Your task to perform on an android device: find which apps use the phone's location Image 0: 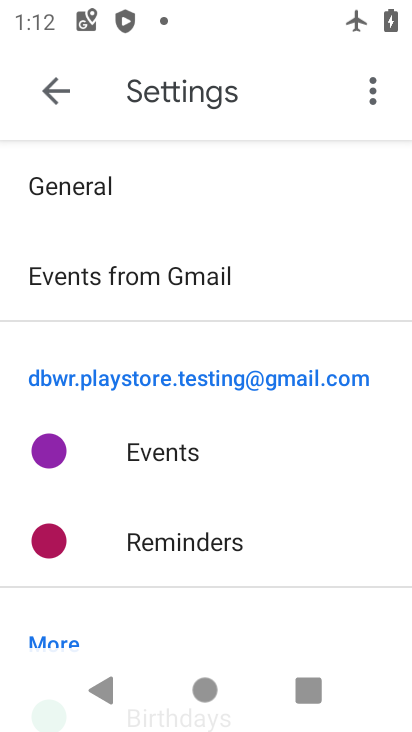
Step 0: press home button
Your task to perform on an android device: find which apps use the phone's location Image 1: 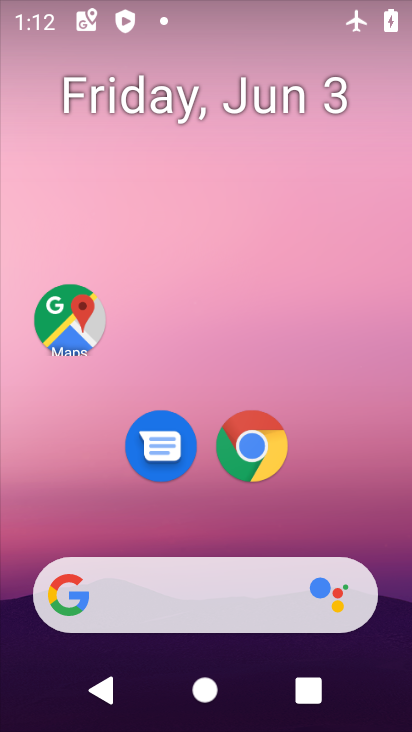
Step 1: drag from (263, 9) to (285, 477)
Your task to perform on an android device: find which apps use the phone's location Image 2: 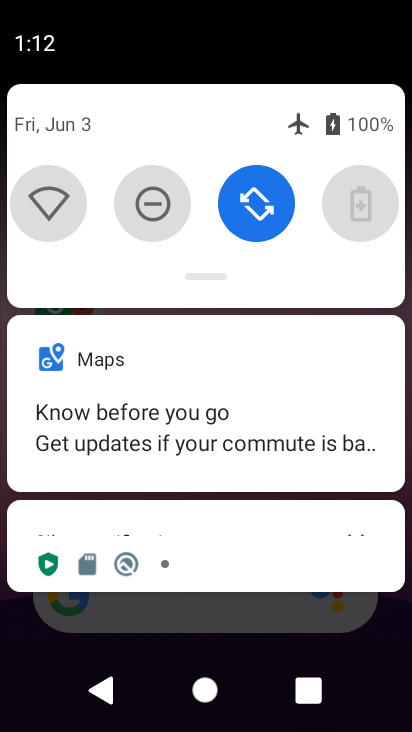
Step 2: drag from (381, 411) to (368, 679)
Your task to perform on an android device: find which apps use the phone's location Image 3: 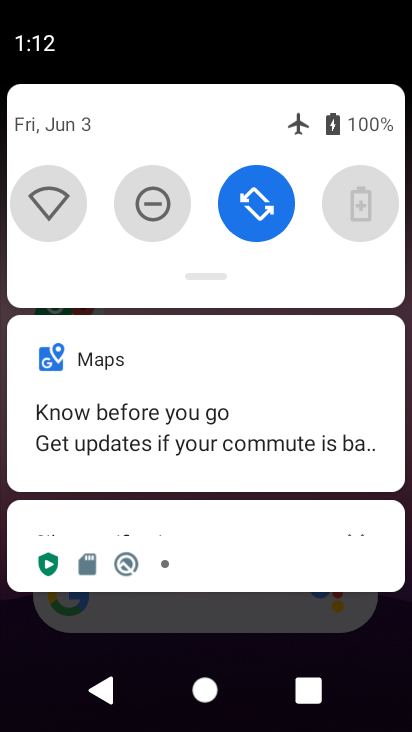
Step 3: drag from (374, 213) to (259, 729)
Your task to perform on an android device: find which apps use the phone's location Image 4: 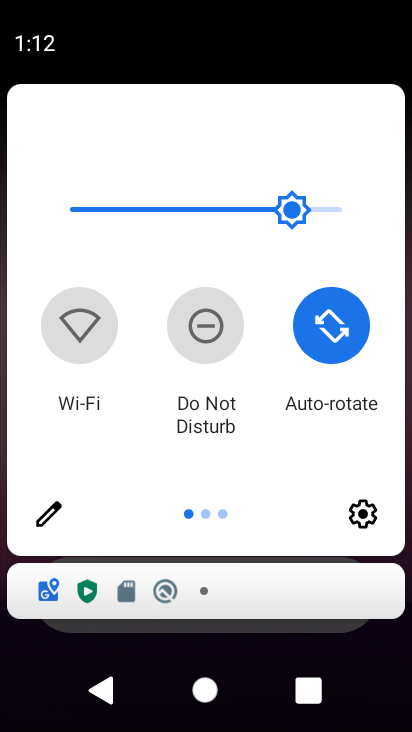
Step 4: drag from (274, 391) to (100, 446)
Your task to perform on an android device: find which apps use the phone's location Image 5: 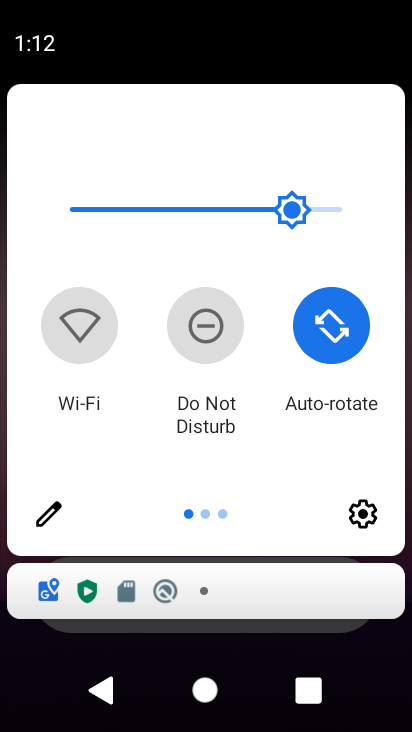
Step 5: drag from (371, 382) to (71, 371)
Your task to perform on an android device: find which apps use the phone's location Image 6: 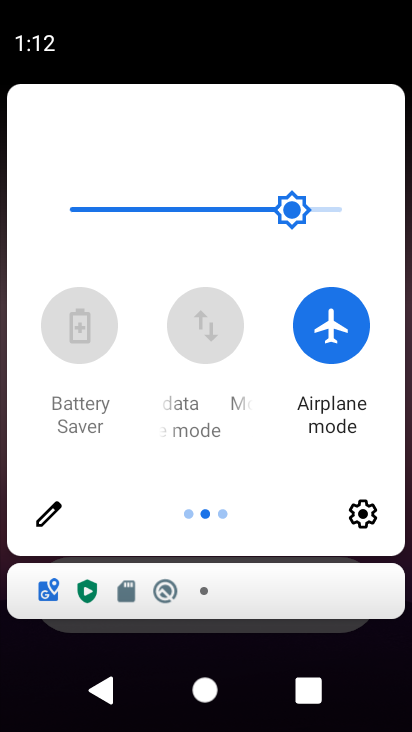
Step 6: click (322, 323)
Your task to perform on an android device: find which apps use the phone's location Image 7: 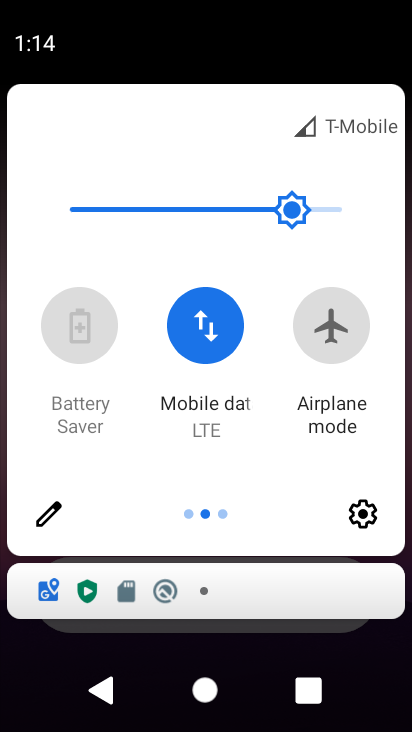
Step 7: press home button
Your task to perform on an android device: find which apps use the phone's location Image 8: 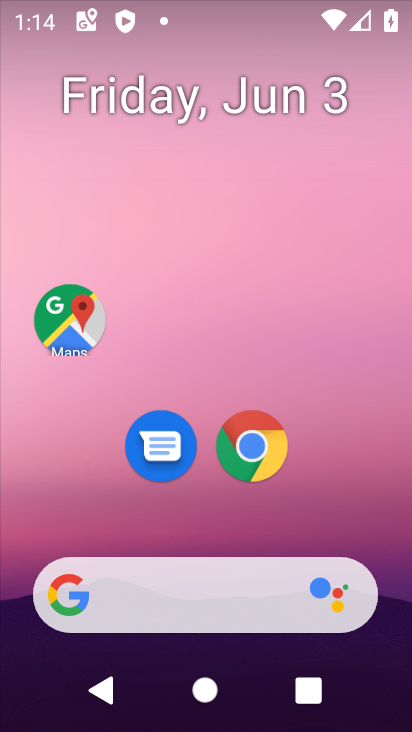
Step 8: drag from (142, 681) to (226, 117)
Your task to perform on an android device: find which apps use the phone's location Image 9: 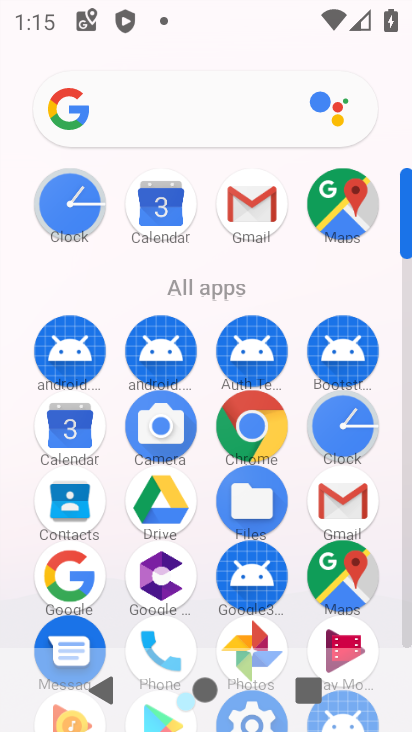
Step 9: drag from (194, 673) to (129, 41)
Your task to perform on an android device: find which apps use the phone's location Image 10: 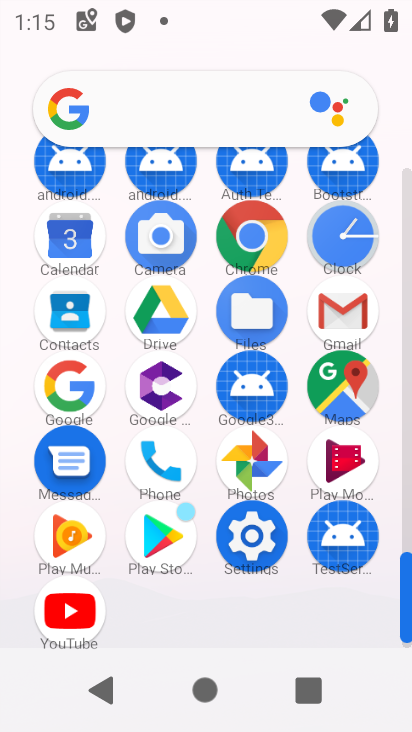
Step 10: click (247, 524)
Your task to perform on an android device: find which apps use the phone's location Image 11: 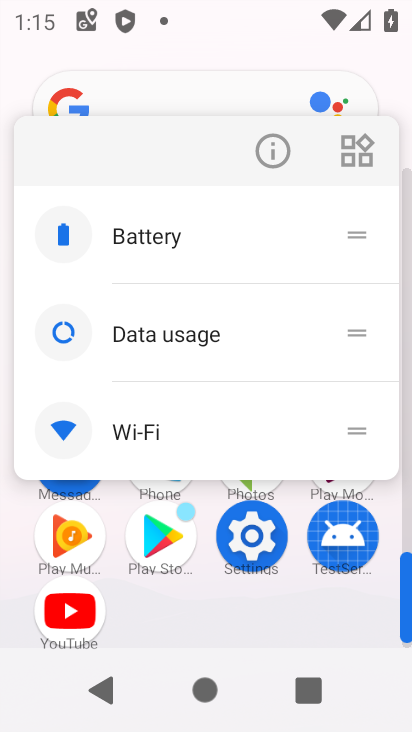
Step 11: click (250, 524)
Your task to perform on an android device: find which apps use the phone's location Image 12: 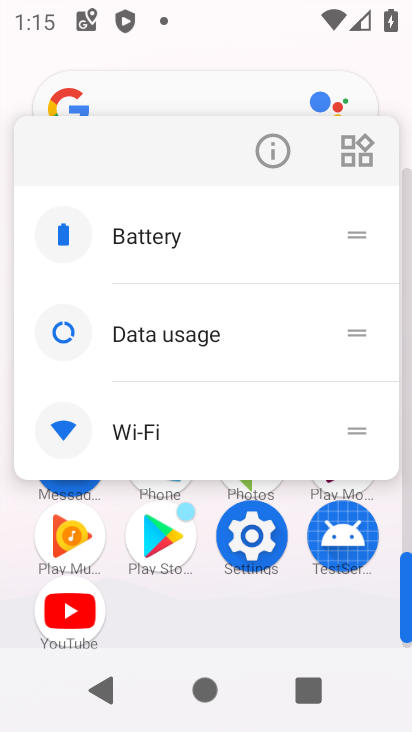
Step 12: click (250, 524)
Your task to perform on an android device: find which apps use the phone's location Image 13: 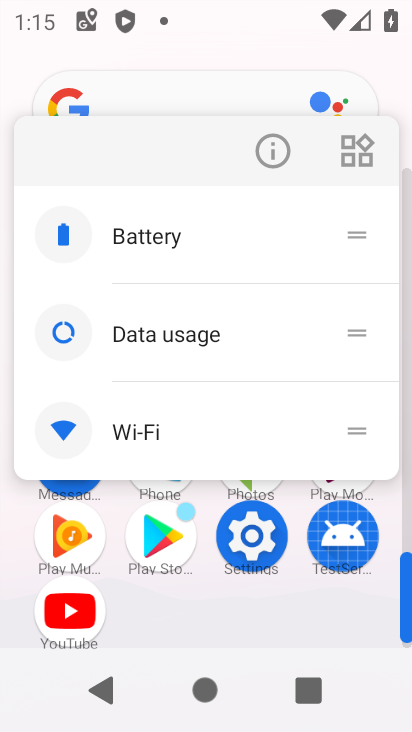
Step 13: click (258, 522)
Your task to perform on an android device: find which apps use the phone's location Image 14: 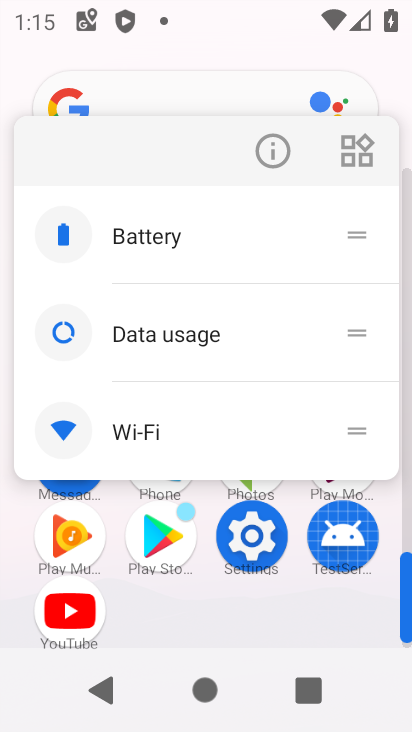
Step 14: click (258, 522)
Your task to perform on an android device: find which apps use the phone's location Image 15: 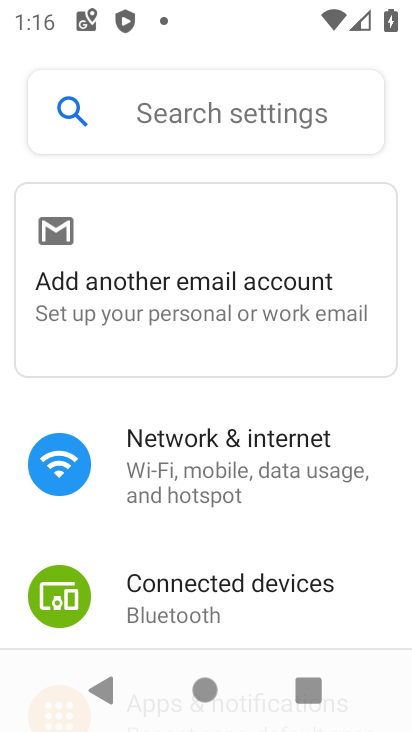
Step 15: drag from (213, 610) to (215, 181)
Your task to perform on an android device: find which apps use the phone's location Image 16: 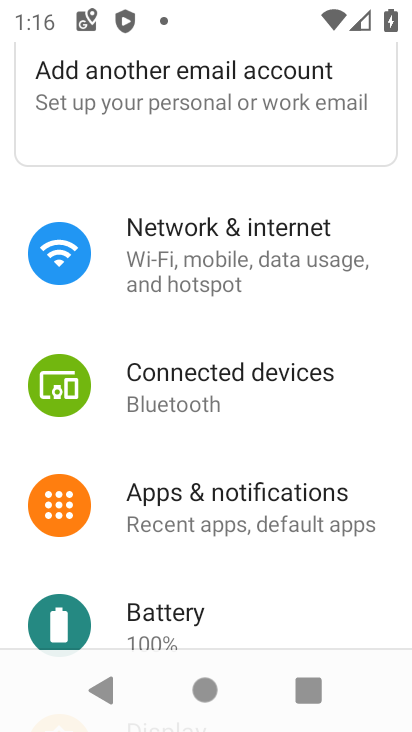
Step 16: drag from (276, 628) to (260, 98)
Your task to perform on an android device: find which apps use the phone's location Image 17: 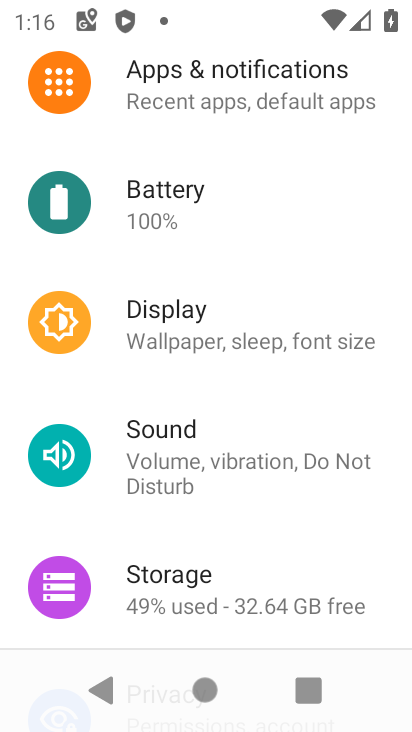
Step 17: drag from (250, 615) to (265, 163)
Your task to perform on an android device: find which apps use the phone's location Image 18: 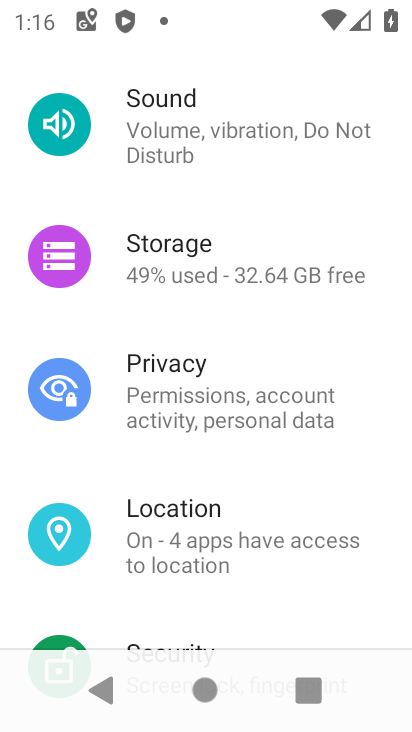
Step 18: click (235, 522)
Your task to perform on an android device: find which apps use the phone's location Image 19: 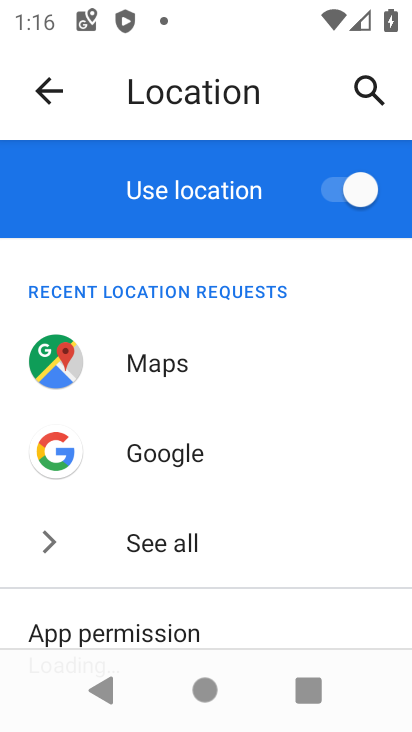
Step 19: drag from (189, 526) to (217, 196)
Your task to perform on an android device: find which apps use the phone's location Image 20: 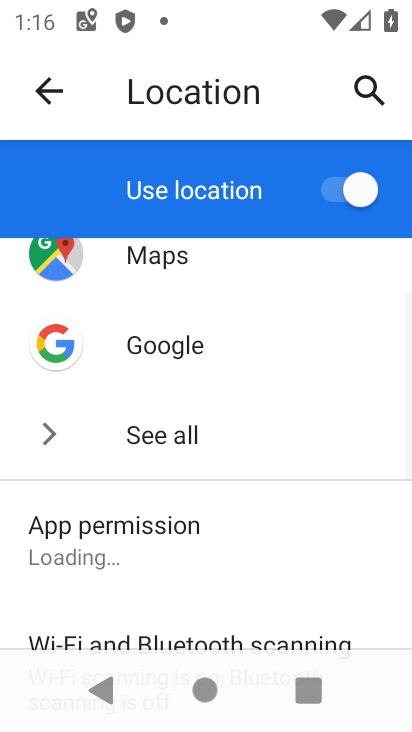
Step 20: click (138, 523)
Your task to perform on an android device: find which apps use the phone's location Image 21: 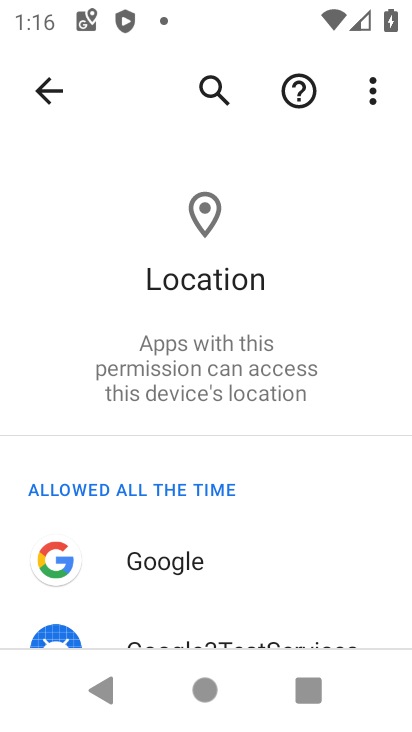
Step 21: task complete